Your task to perform on an android device: turn off wifi Image 0: 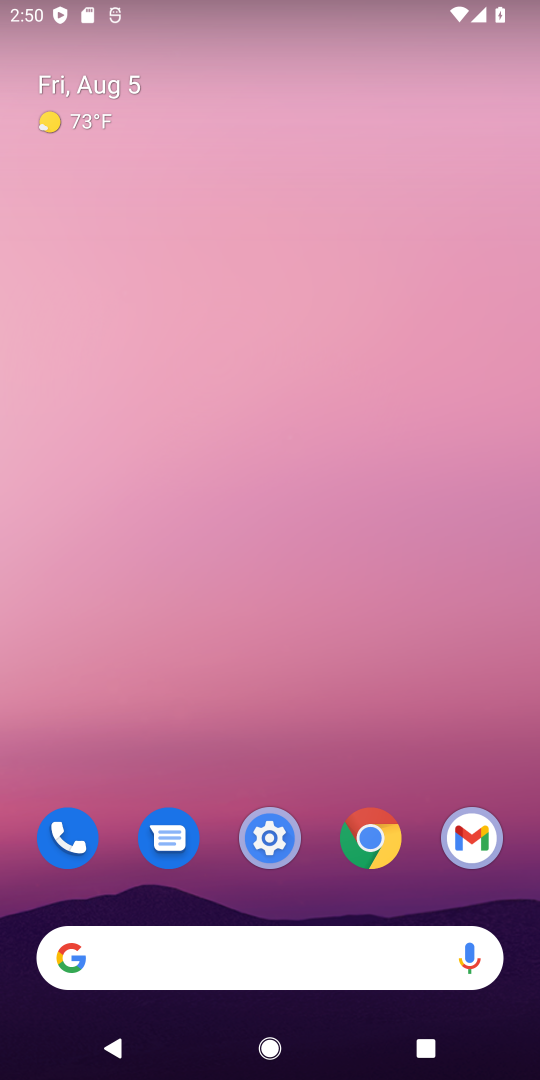
Step 0: drag from (235, 953) to (321, 297)
Your task to perform on an android device: turn off wifi Image 1: 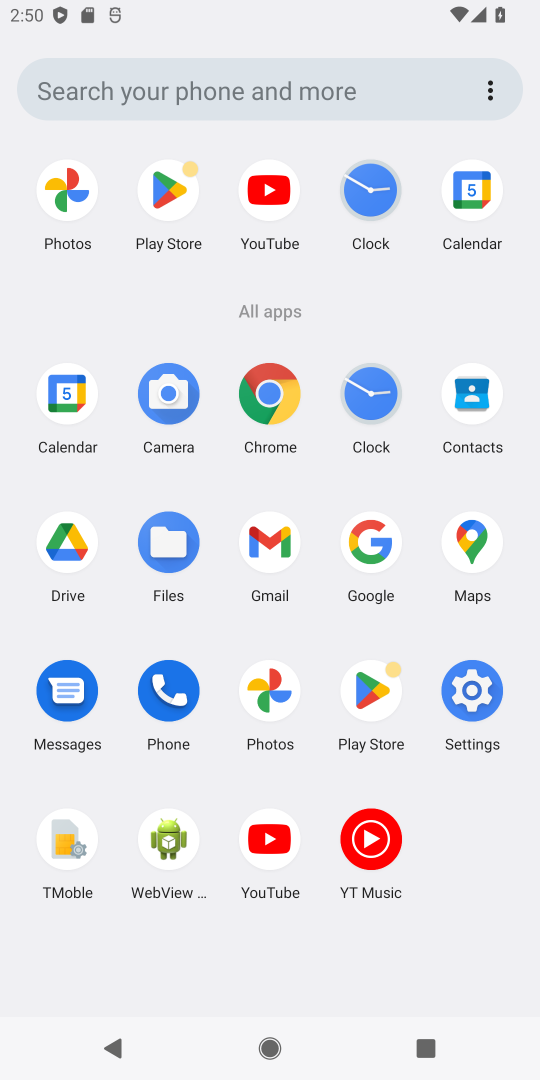
Step 1: click (471, 687)
Your task to perform on an android device: turn off wifi Image 2: 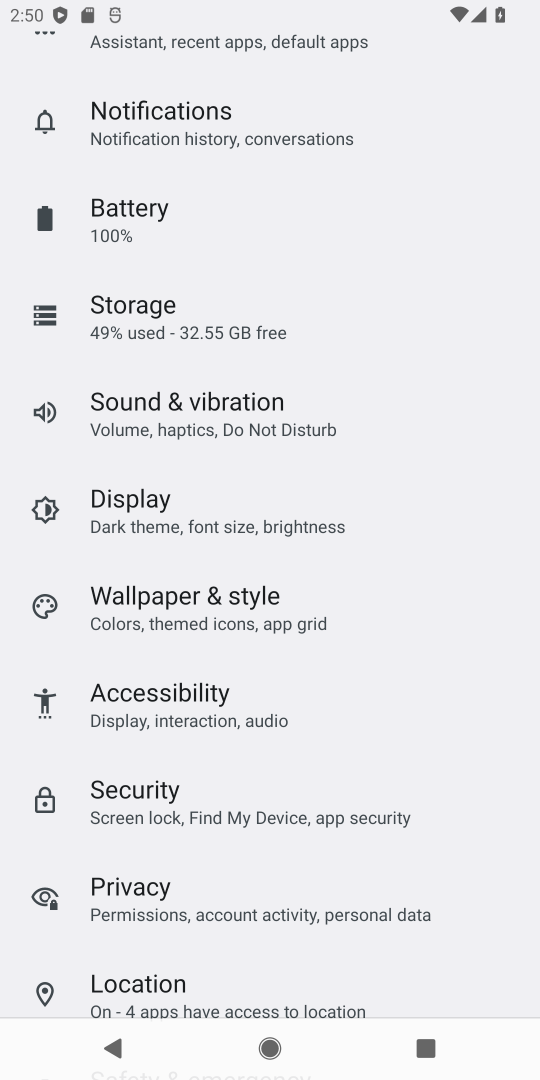
Step 2: drag from (133, 150) to (247, 1026)
Your task to perform on an android device: turn off wifi Image 3: 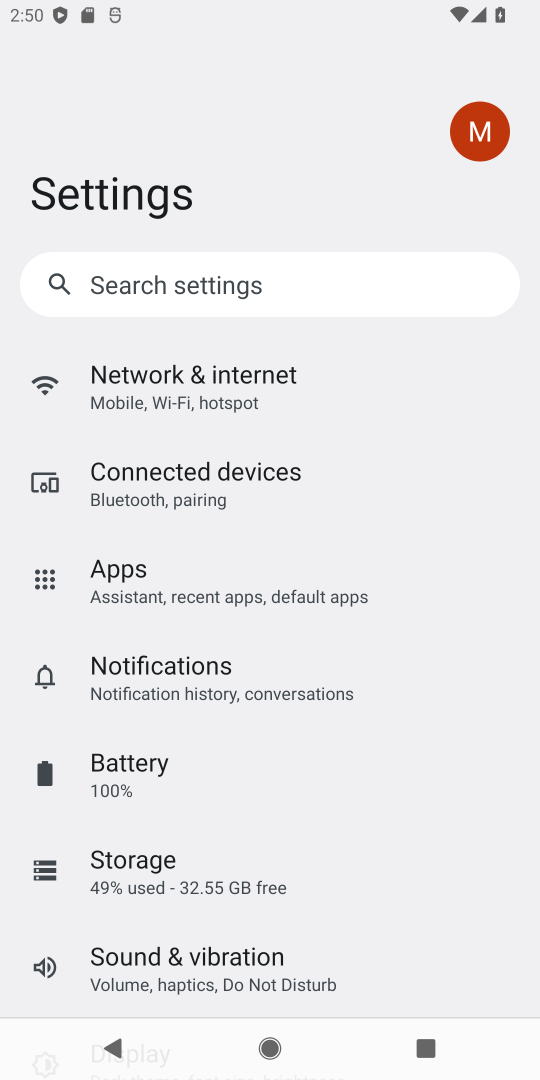
Step 3: click (205, 372)
Your task to perform on an android device: turn off wifi Image 4: 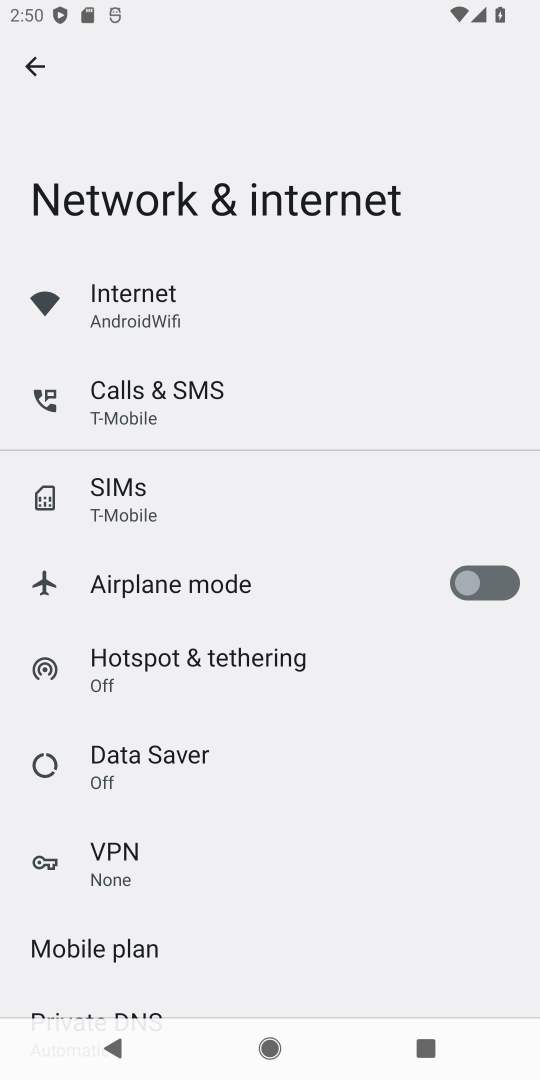
Step 4: click (126, 292)
Your task to perform on an android device: turn off wifi Image 5: 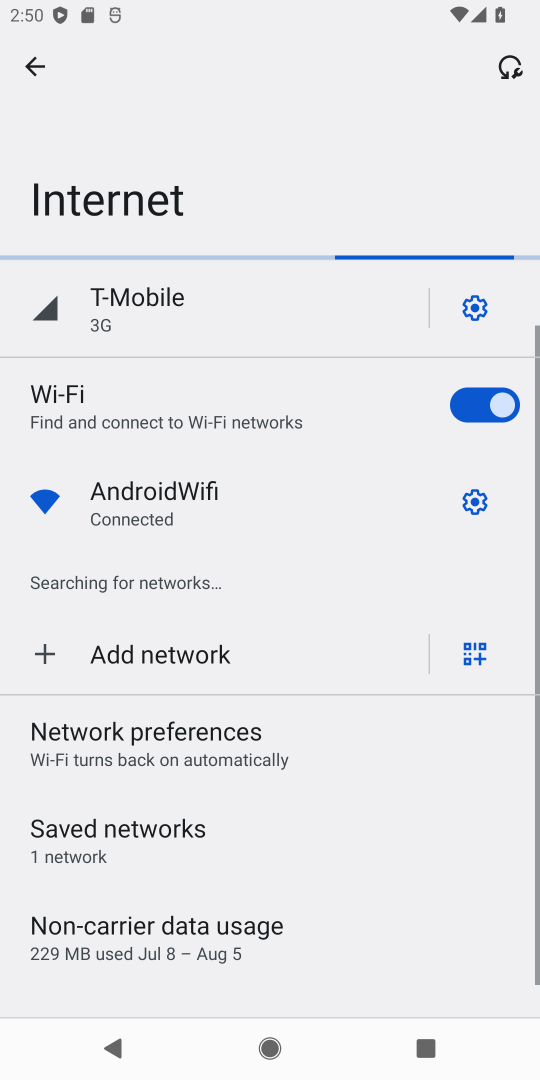
Step 5: click (452, 390)
Your task to perform on an android device: turn off wifi Image 6: 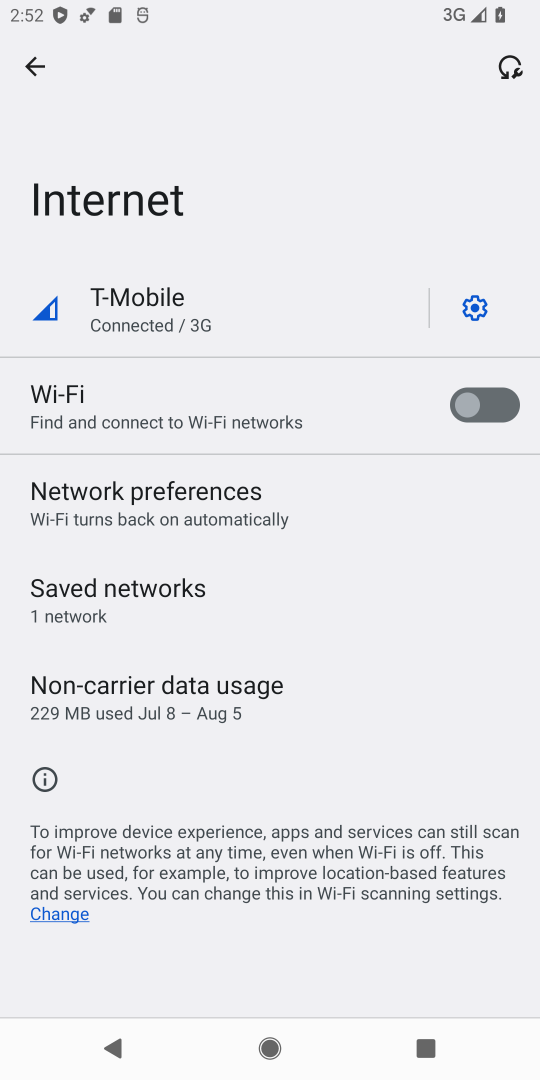
Step 6: task complete